Your task to perform on an android device: change your default location settings in chrome Image 0: 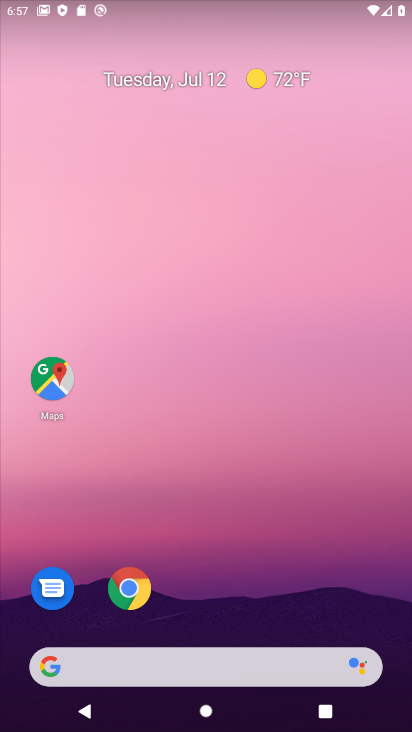
Step 0: drag from (312, 539) to (273, 147)
Your task to perform on an android device: change your default location settings in chrome Image 1: 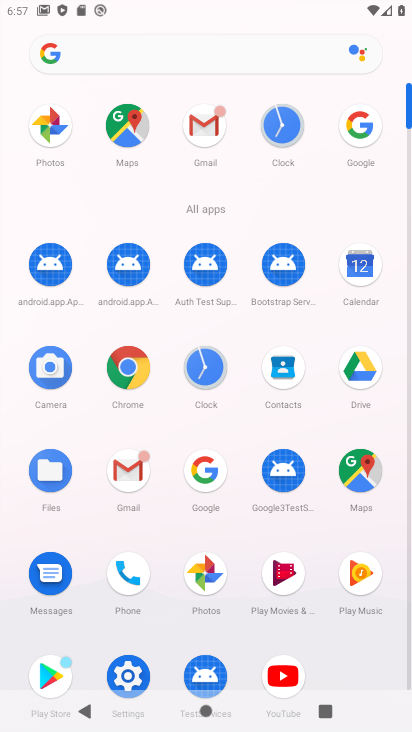
Step 1: click (129, 368)
Your task to perform on an android device: change your default location settings in chrome Image 2: 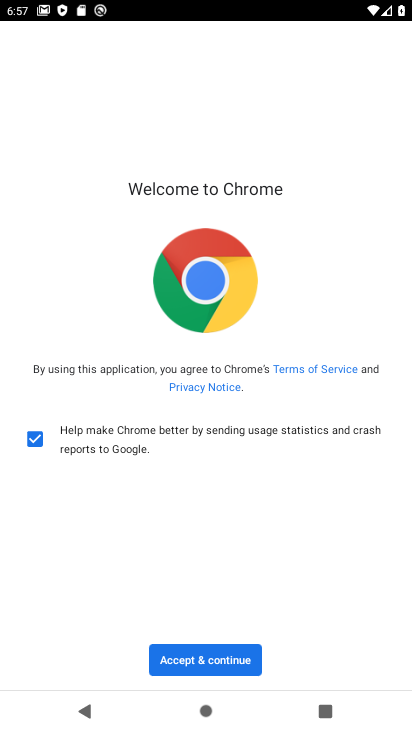
Step 2: click (167, 671)
Your task to perform on an android device: change your default location settings in chrome Image 3: 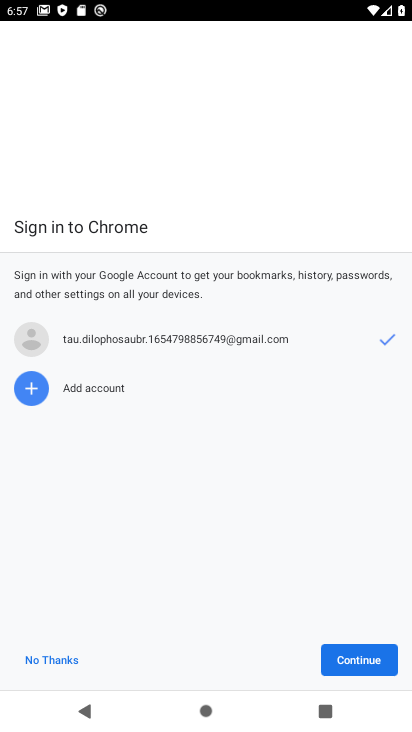
Step 3: click (48, 649)
Your task to perform on an android device: change your default location settings in chrome Image 4: 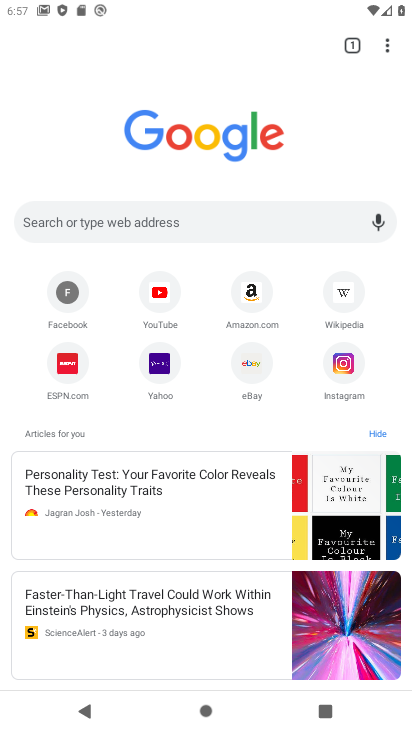
Step 4: drag from (393, 46) to (227, 379)
Your task to perform on an android device: change your default location settings in chrome Image 5: 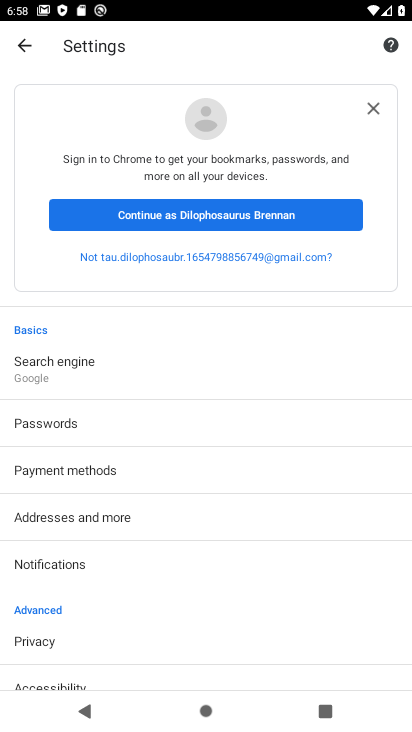
Step 5: drag from (109, 609) to (153, 358)
Your task to perform on an android device: change your default location settings in chrome Image 6: 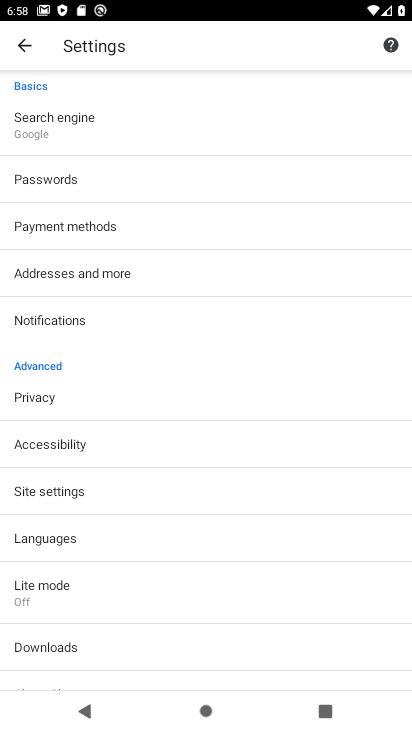
Step 6: drag from (123, 640) to (231, 299)
Your task to perform on an android device: change your default location settings in chrome Image 7: 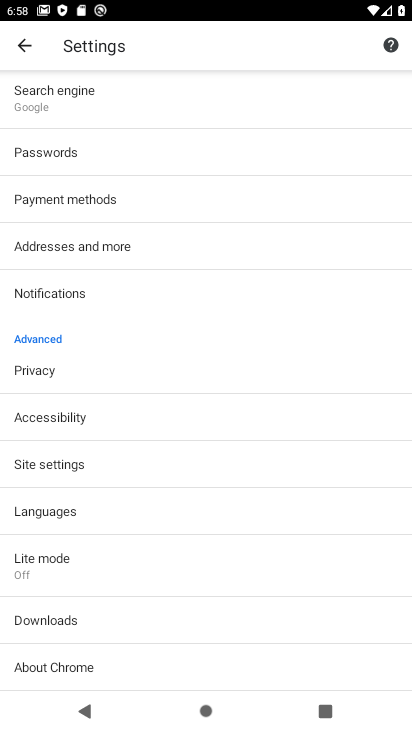
Step 7: click (107, 458)
Your task to perform on an android device: change your default location settings in chrome Image 8: 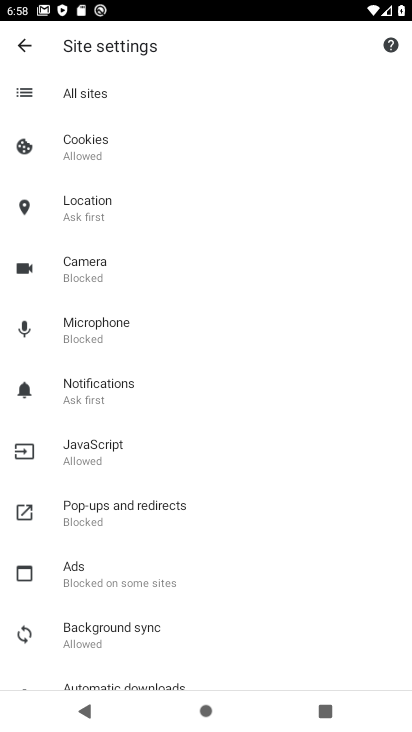
Step 8: click (86, 211)
Your task to perform on an android device: change your default location settings in chrome Image 9: 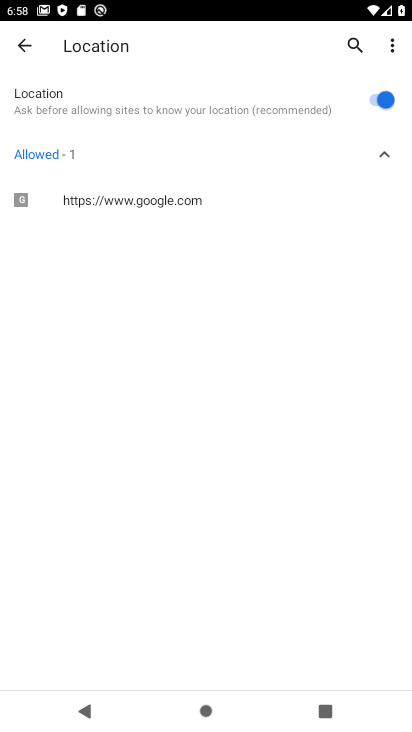
Step 9: click (385, 90)
Your task to perform on an android device: change your default location settings in chrome Image 10: 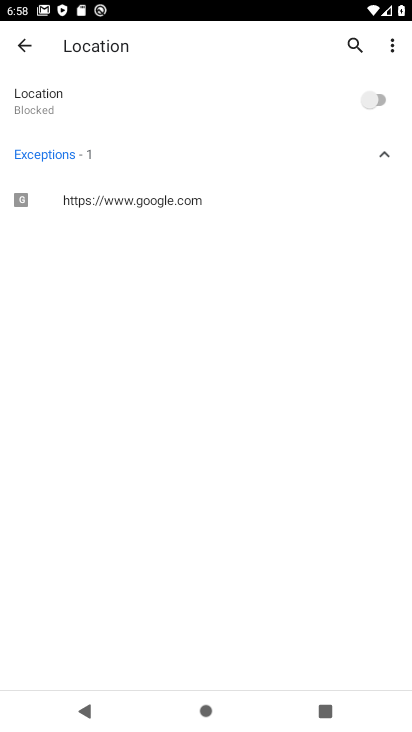
Step 10: task complete